Your task to perform on an android device: stop showing notifications on the lock screen Image 0: 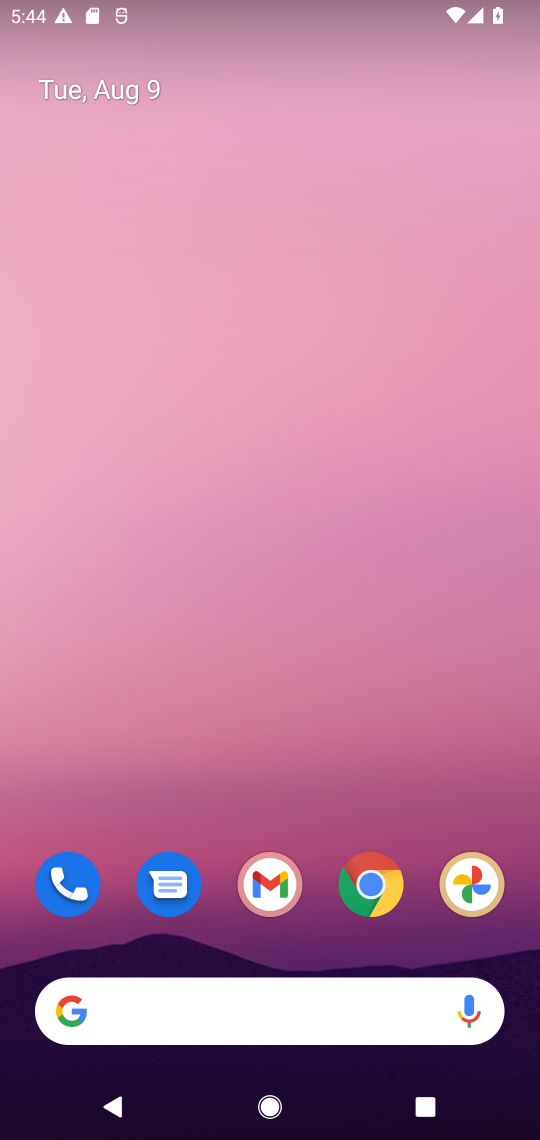
Step 0: drag from (214, 1011) to (374, 100)
Your task to perform on an android device: stop showing notifications on the lock screen Image 1: 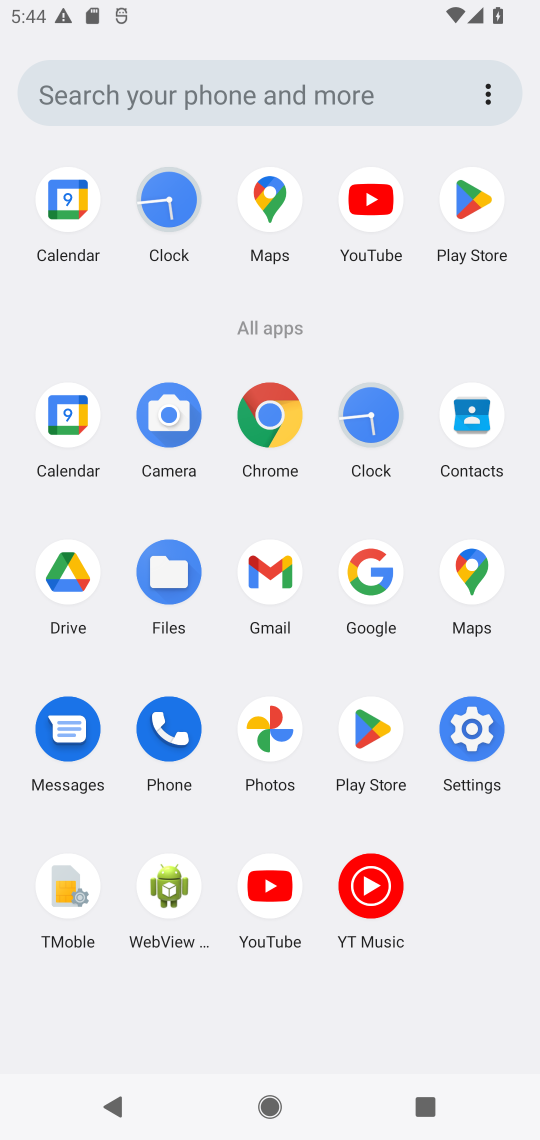
Step 1: click (472, 729)
Your task to perform on an android device: stop showing notifications on the lock screen Image 2: 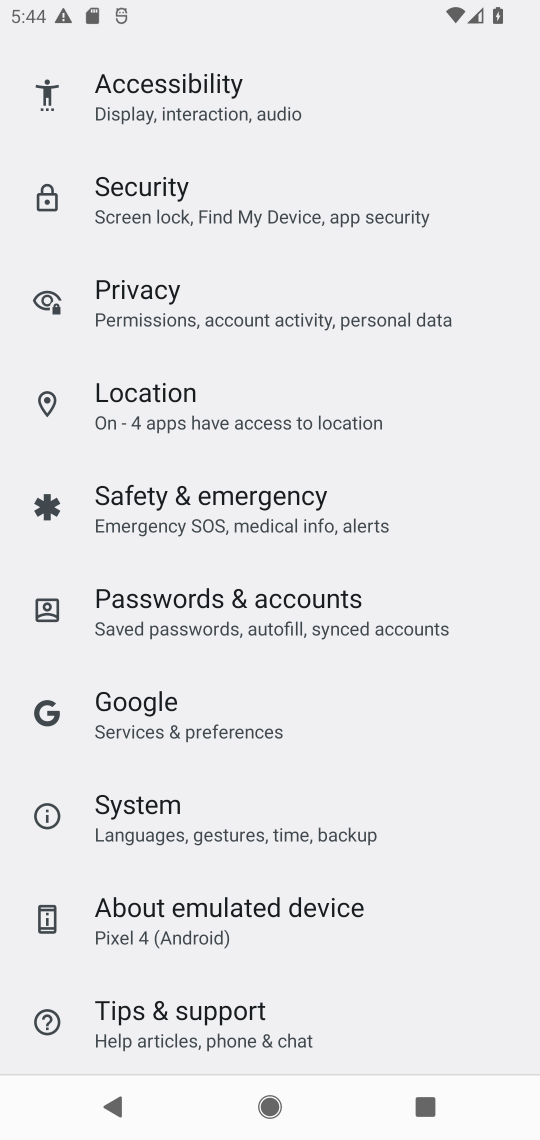
Step 2: drag from (312, 285) to (291, 665)
Your task to perform on an android device: stop showing notifications on the lock screen Image 3: 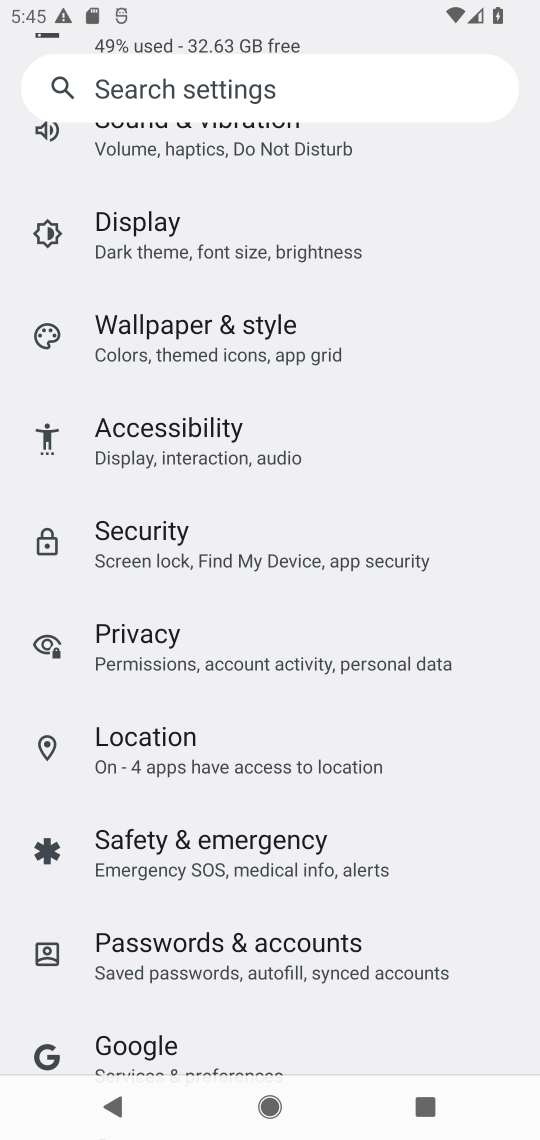
Step 3: drag from (317, 291) to (250, 790)
Your task to perform on an android device: stop showing notifications on the lock screen Image 4: 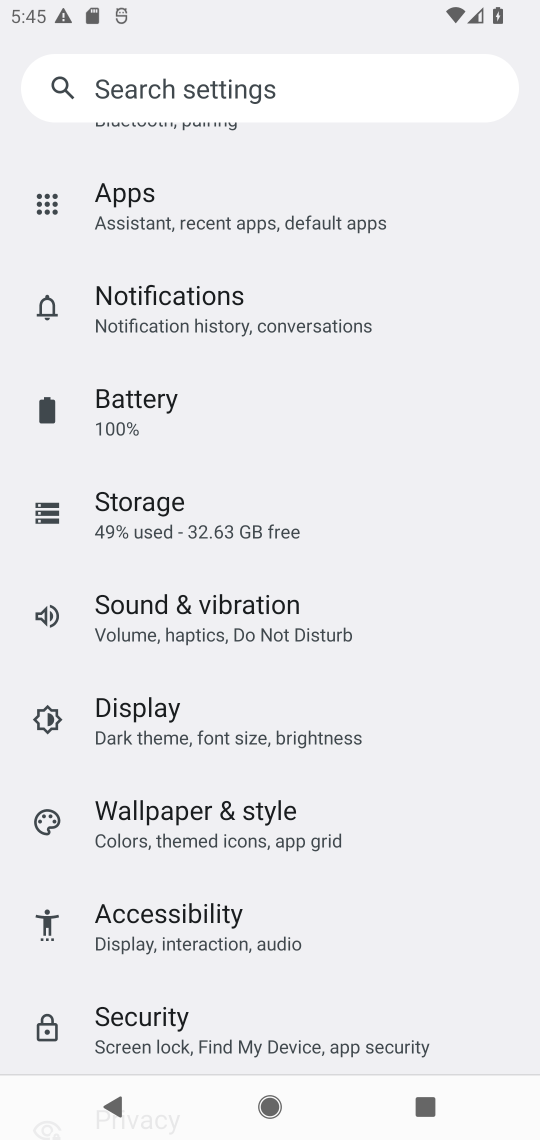
Step 4: click (285, 325)
Your task to perform on an android device: stop showing notifications on the lock screen Image 5: 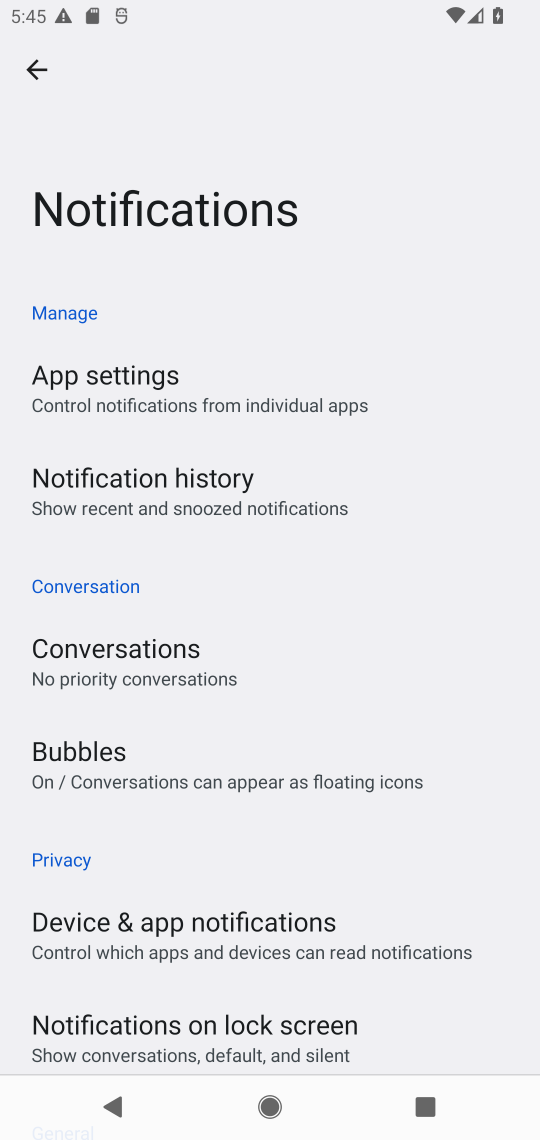
Step 5: drag from (193, 822) to (308, 505)
Your task to perform on an android device: stop showing notifications on the lock screen Image 6: 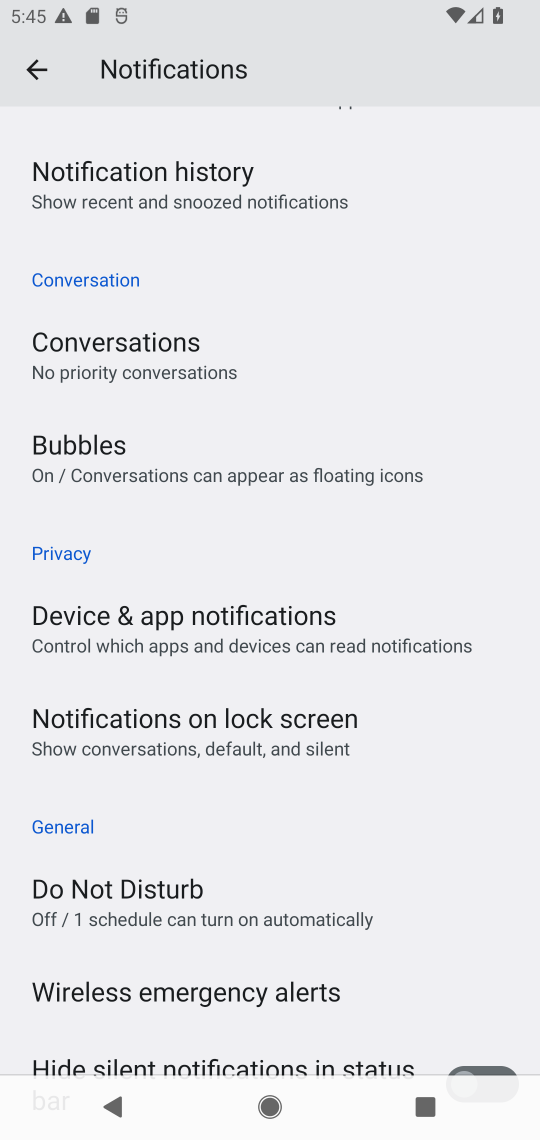
Step 6: click (241, 735)
Your task to perform on an android device: stop showing notifications on the lock screen Image 7: 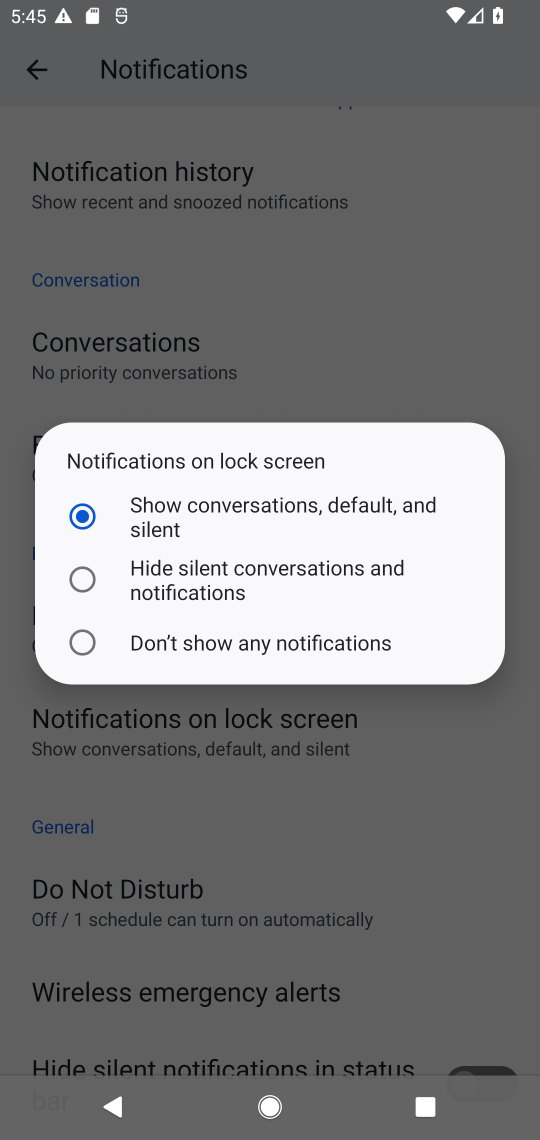
Step 7: click (87, 640)
Your task to perform on an android device: stop showing notifications on the lock screen Image 8: 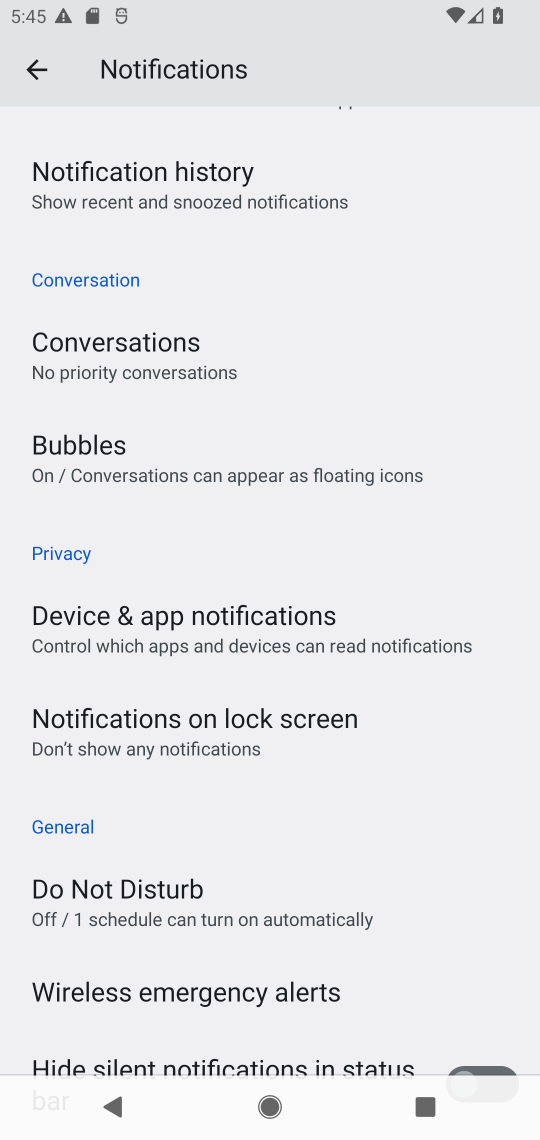
Step 8: task complete